Your task to perform on an android device: Open network settings Image 0: 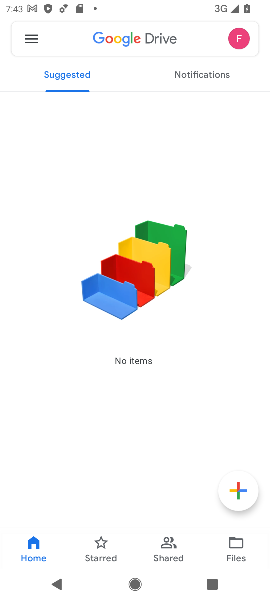
Step 0: click (168, 468)
Your task to perform on an android device: Open network settings Image 1: 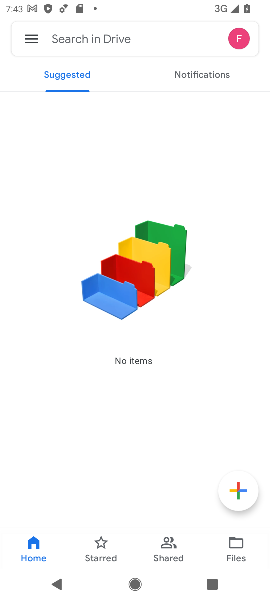
Step 1: press home button
Your task to perform on an android device: Open network settings Image 2: 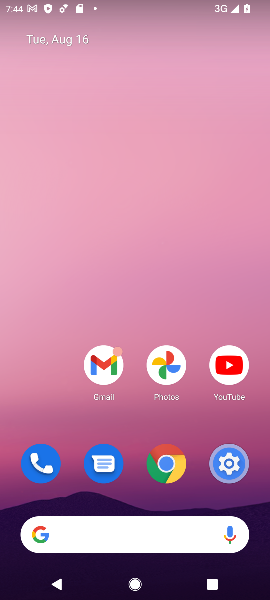
Step 2: drag from (124, 512) to (133, 95)
Your task to perform on an android device: Open network settings Image 3: 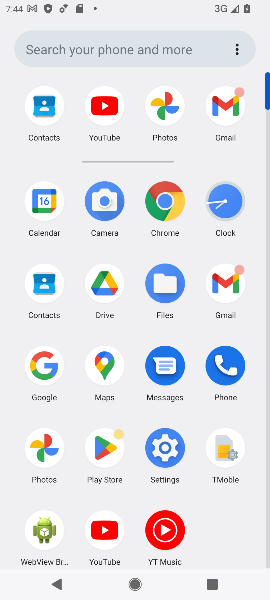
Step 3: click (172, 454)
Your task to perform on an android device: Open network settings Image 4: 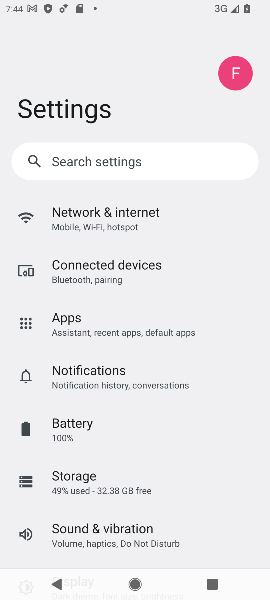
Step 4: click (141, 218)
Your task to perform on an android device: Open network settings Image 5: 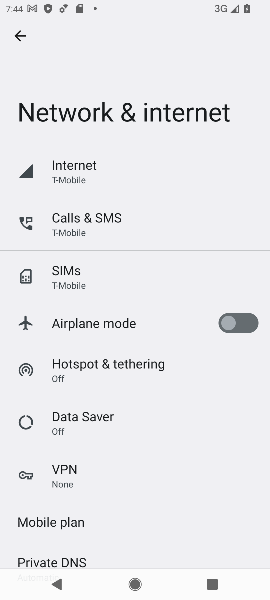
Step 5: task complete